Your task to perform on an android device: delete the emails in spam in the gmail app Image 0: 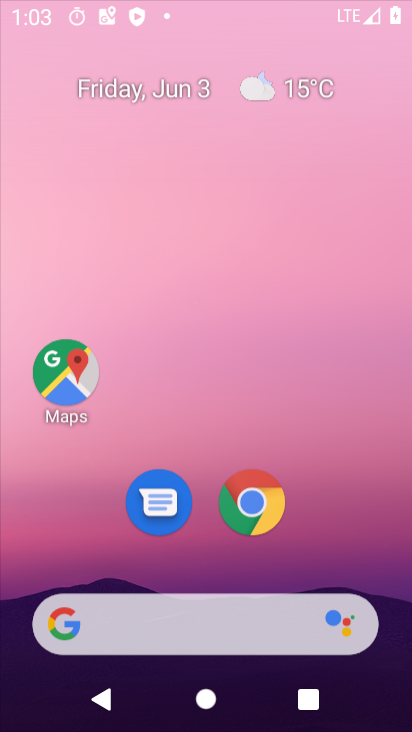
Step 0: drag from (386, 646) to (273, 64)
Your task to perform on an android device: delete the emails in spam in the gmail app Image 1: 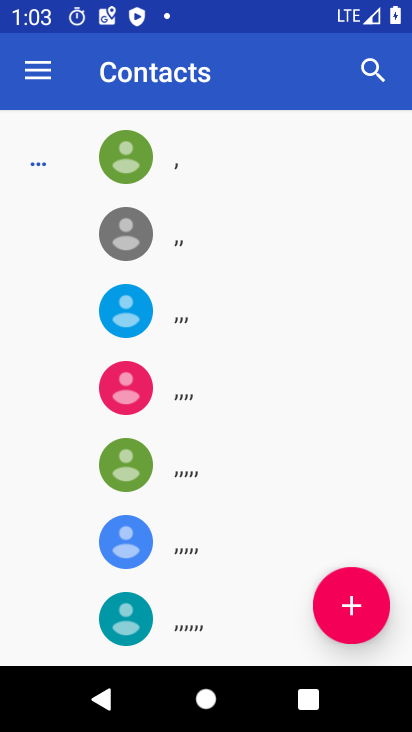
Step 1: press home button
Your task to perform on an android device: delete the emails in spam in the gmail app Image 2: 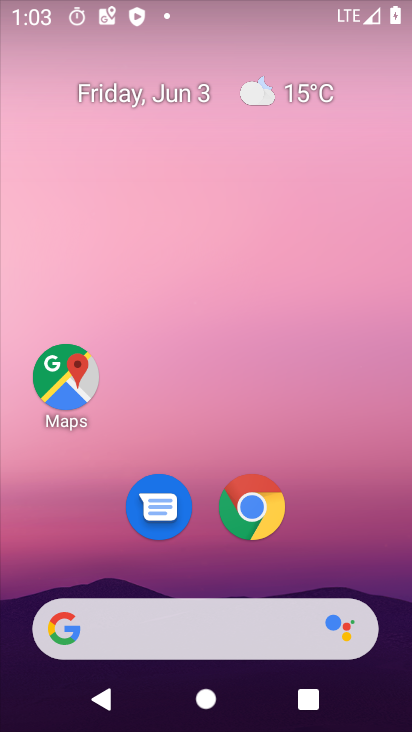
Step 2: drag from (401, 579) to (278, 49)
Your task to perform on an android device: delete the emails in spam in the gmail app Image 3: 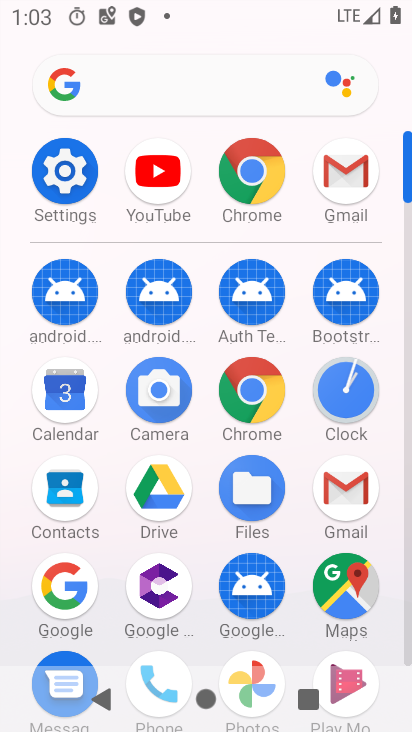
Step 3: click (335, 497)
Your task to perform on an android device: delete the emails in spam in the gmail app Image 4: 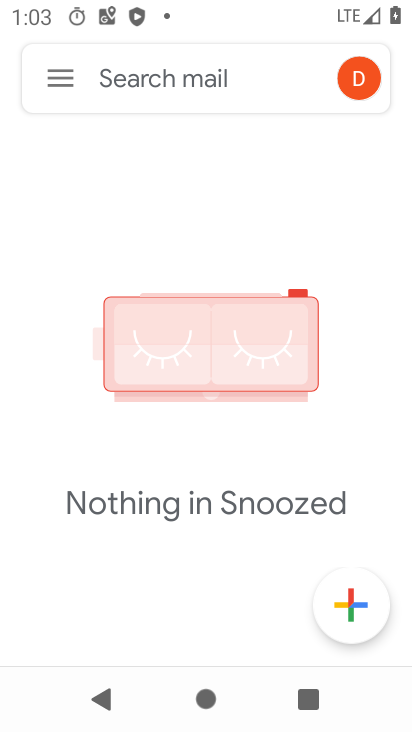
Step 4: click (49, 77)
Your task to perform on an android device: delete the emails in spam in the gmail app Image 5: 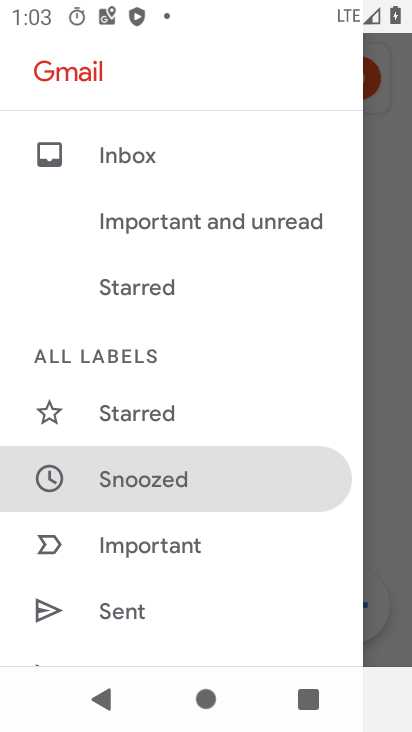
Step 5: drag from (160, 590) to (185, 177)
Your task to perform on an android device: delete the emails in spam in the gmail app Image 6: 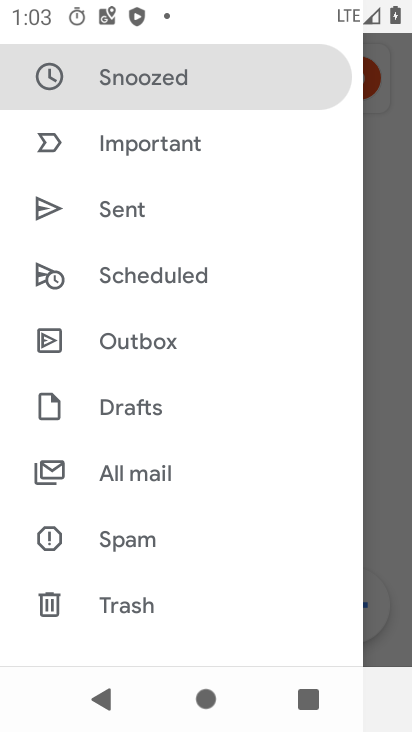
Step 6: click (143, 551)
Your task to perform on an android device: delete the emails in spam in the gmail app Image 7: 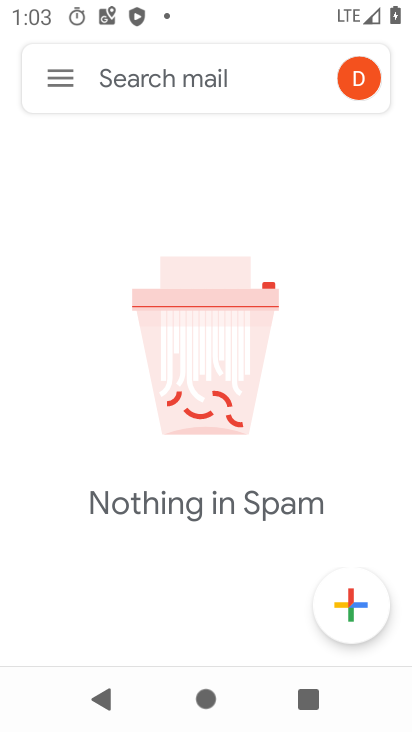
Step 7: task complete